Your task to perform on an android device: open chrome privacy settings Image 0: 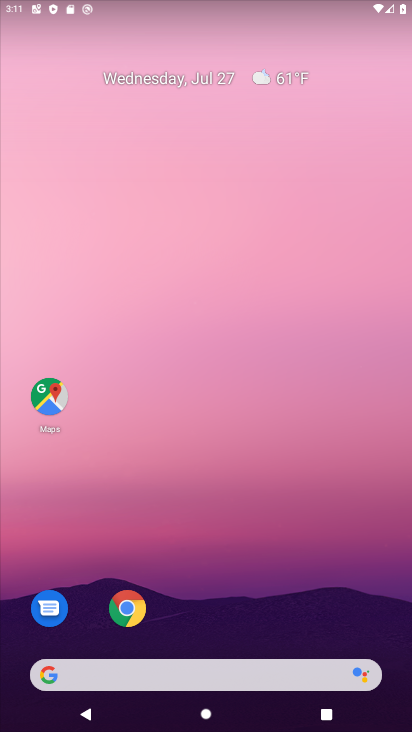
Step 0: click (125, 596)
Your task to perform on an android device: open chrome privacy settings Image 1: 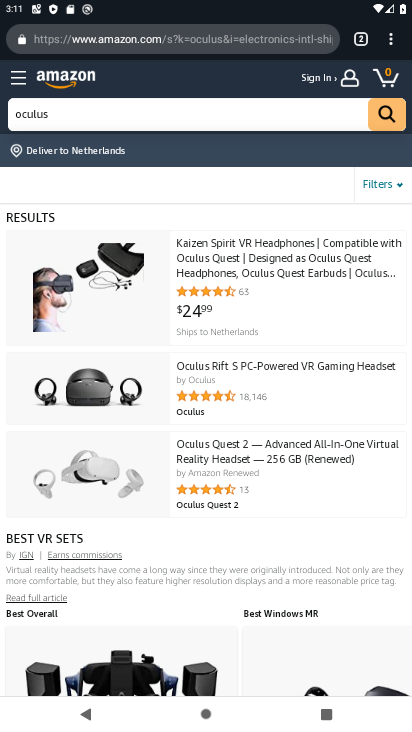
Step 1: click (383, 35)
Your task to perform on an android device: open chrome privacy settings Image 2: 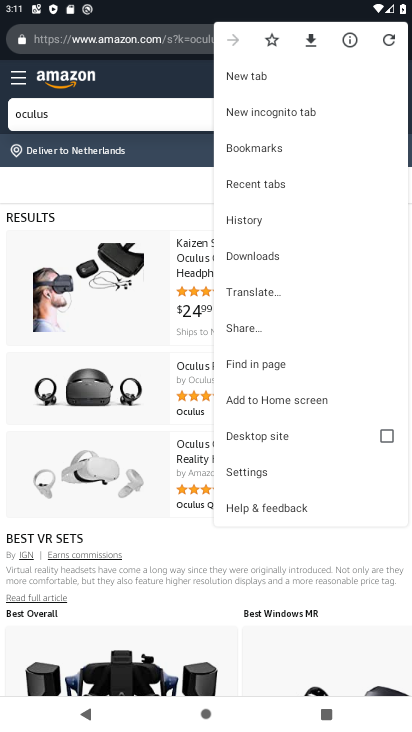
Step 2: click (236, 466)
Your task to perform on an android device: open chrome privacy settings Image 3: 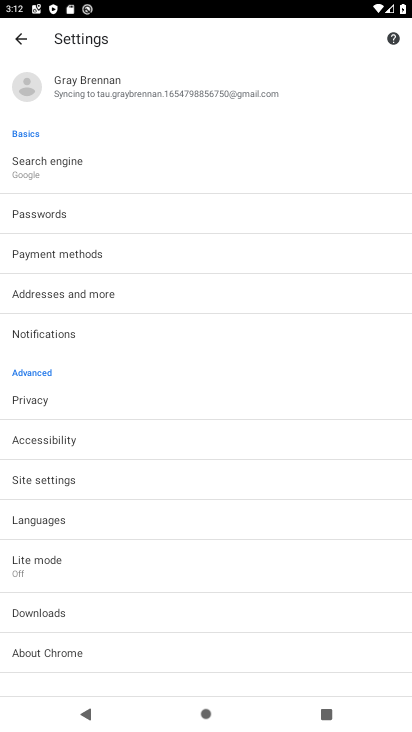
Step 3: click (103, 396)
Your task to perform on an android device: open chrome privacy settings Image 4: 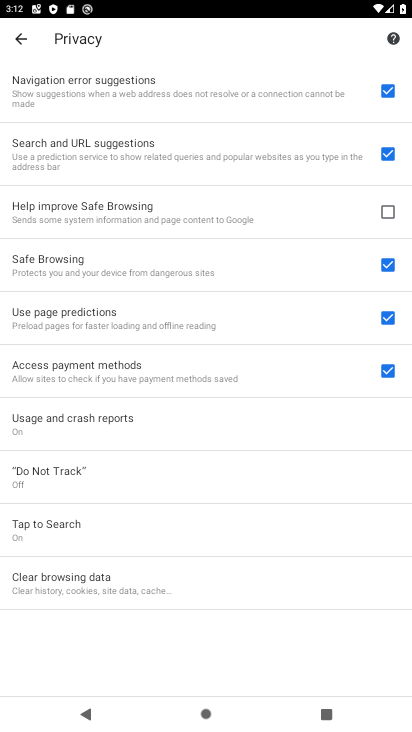
Step 4: task complete